Your task to perform on an android device: Open notification settings Image 0: 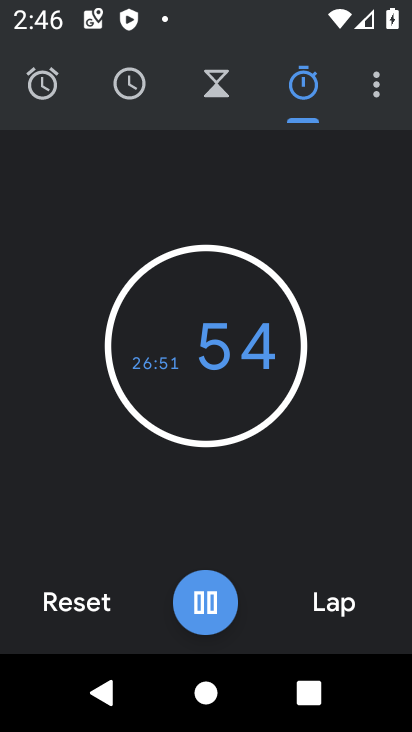
Step 0: press home button
Your task to perform on an android device: Open notification settings Image 1: 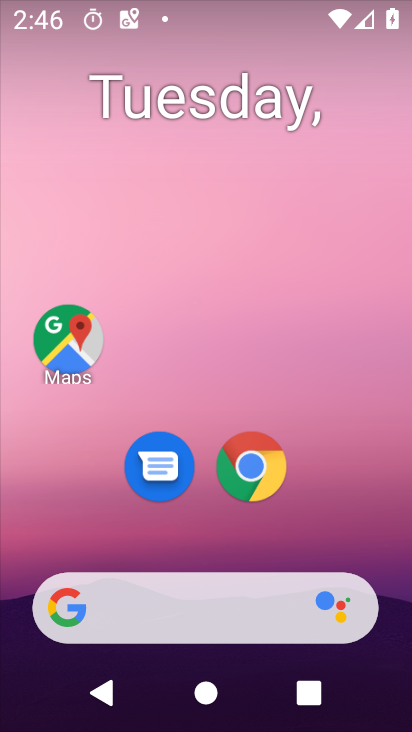
Step 1: drag from (385, 538) to (373, 202)
Your task to perform on an android device: Open notification settings Image 2: 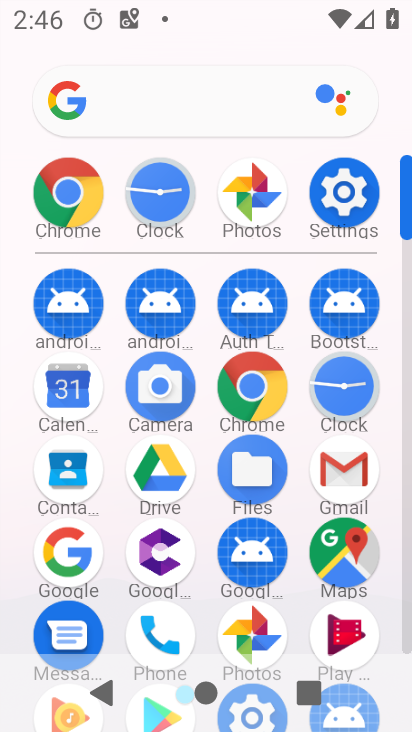
Step 2: click (356, 207)
Your task to perform on an android device: Open notification settings Image 3: 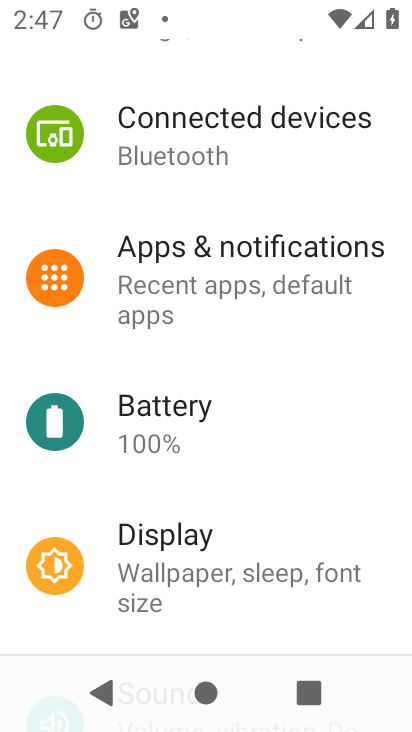
Step 3: drag from (365, 193) to (340, 370)
Your task to perform on an android device: Open notification settings Image 4: 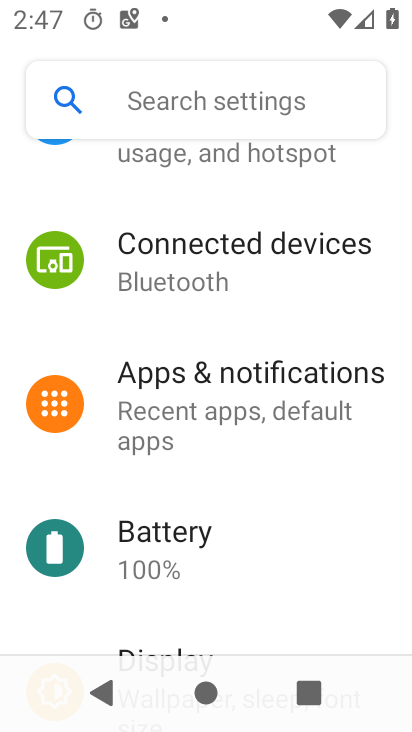
Step 4: drag from (385, 194) to (380, 329)
Your task to perform on an android device: Open notification settings Image 5: 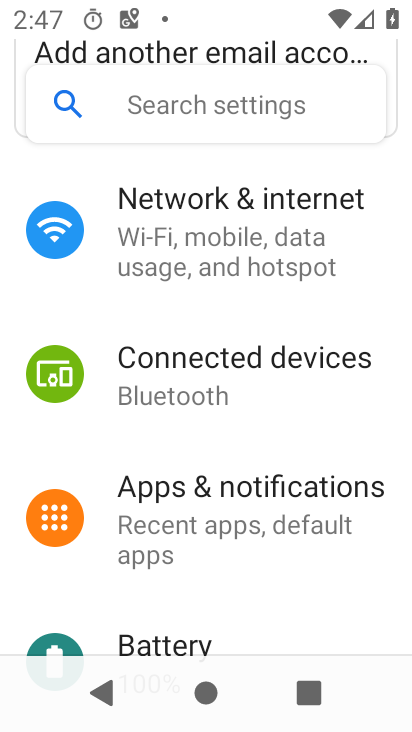
Step 5: drag from (381, 190) to (373, 327)
Your task to perform on an android device: Open notification settings Image 6: 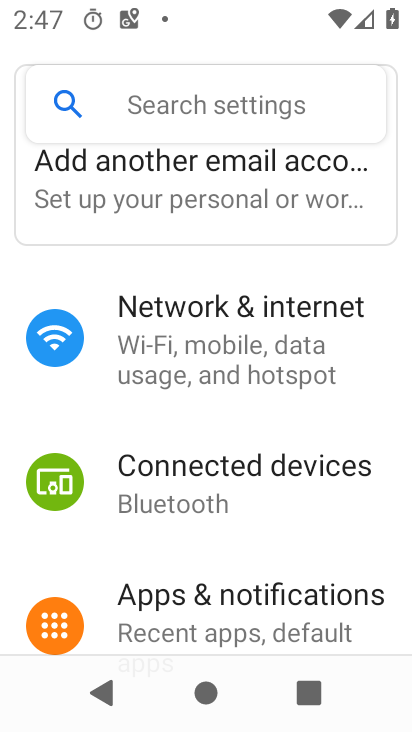
Step 6: drag from (374, 157) to (362, 357)
Your task to perform on an android device: Open notification settings Image 7: 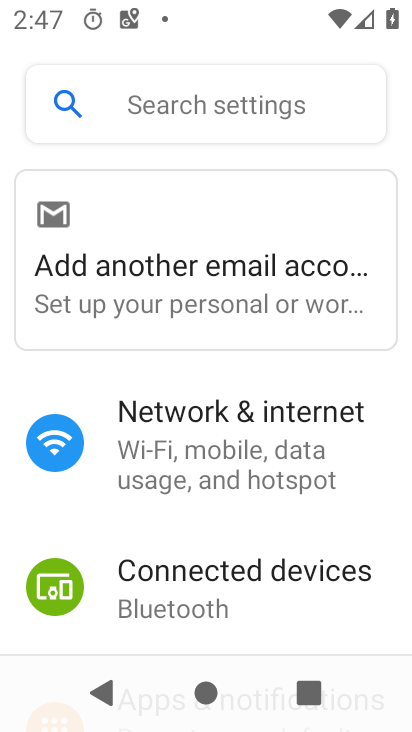
Step 7: drag from (360, 492) to (373, 321)
Your task to perform on an android device: Open notification settings Image 8: 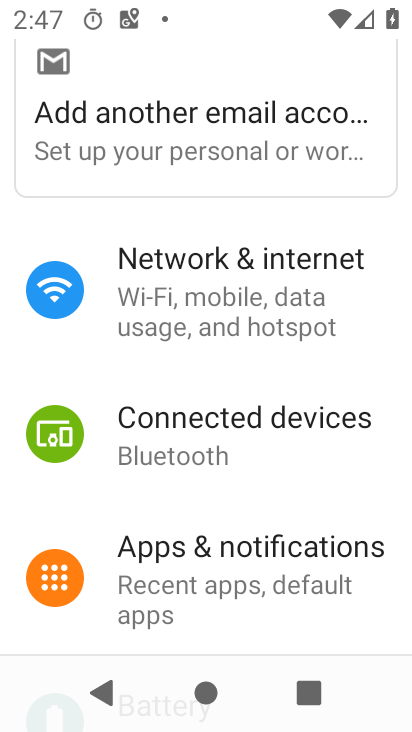
Step 8: drag from (344, 463) to (350, 320)
Your task to perform on an android device: Open notification settings Image 9: 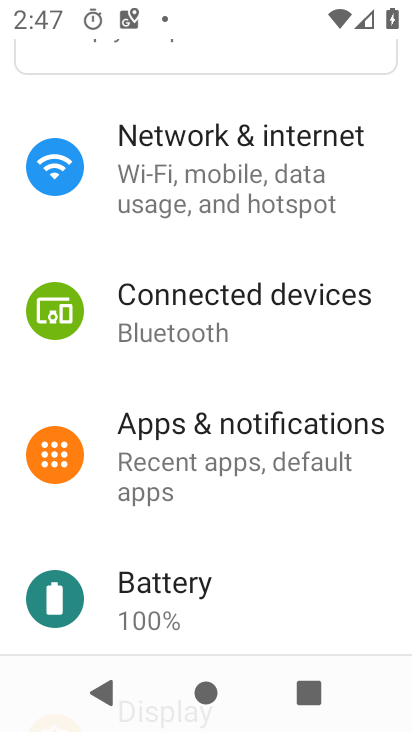
Step 9: click (301, 446)
Your task to perform on an android device: Open notification settings Image 10: 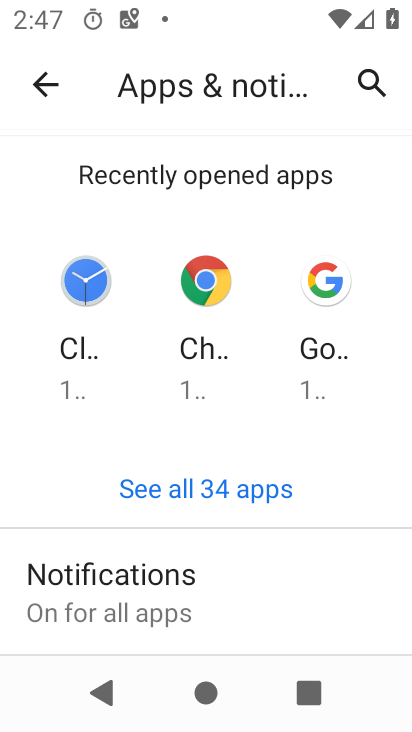
Step 10: drag from (319, 554) to (322, 406)
Your task to perform on an android device: Open notification settings Image 11: 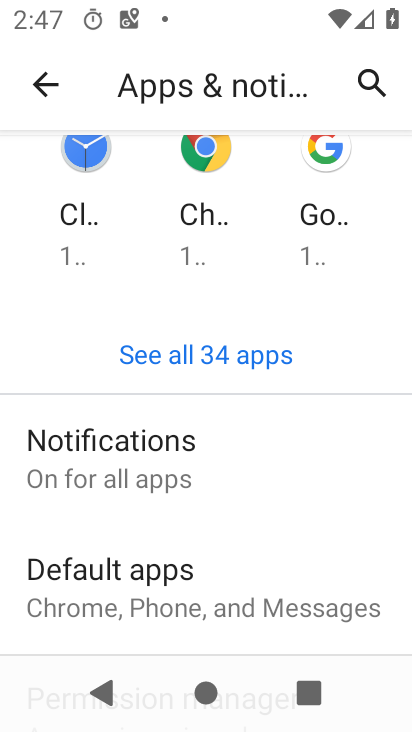
Step 11: click (210, 463)
Your task to perform on an android device: Open notification settings Image 12: 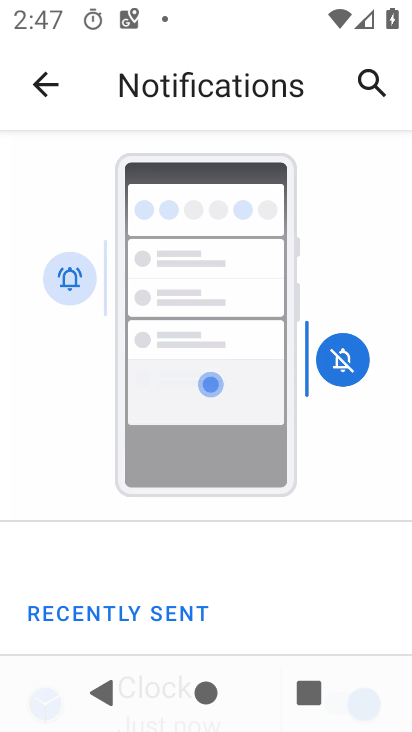
Step 12: task complete